Your task to perform on an android device: remove spam from my inbox in the gmail app Image 0: 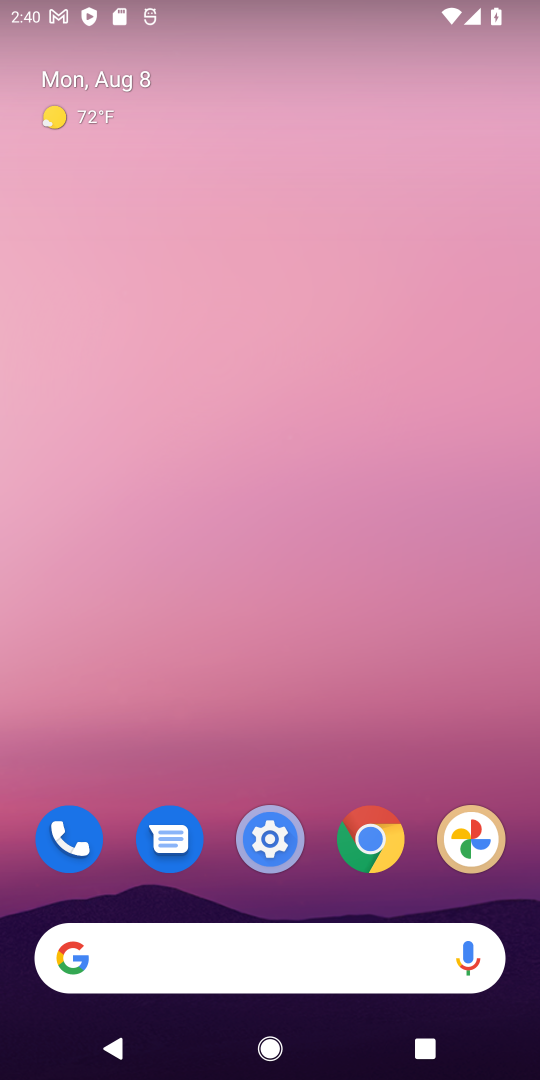
Step 0: drag from (439, 747) to (440, 196)
Your task to perform on an android device: remove spam from my inbox in the gmail app Image 1: 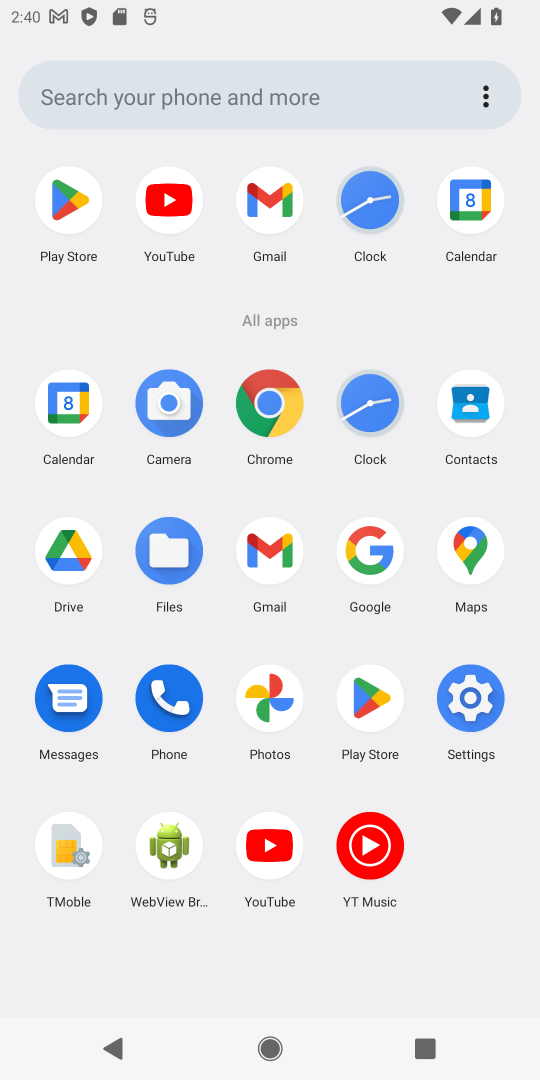
Step 1: click (255, 561)
Your task to perform on an android device: remove spam from my inbox in the gmail app Image 2: 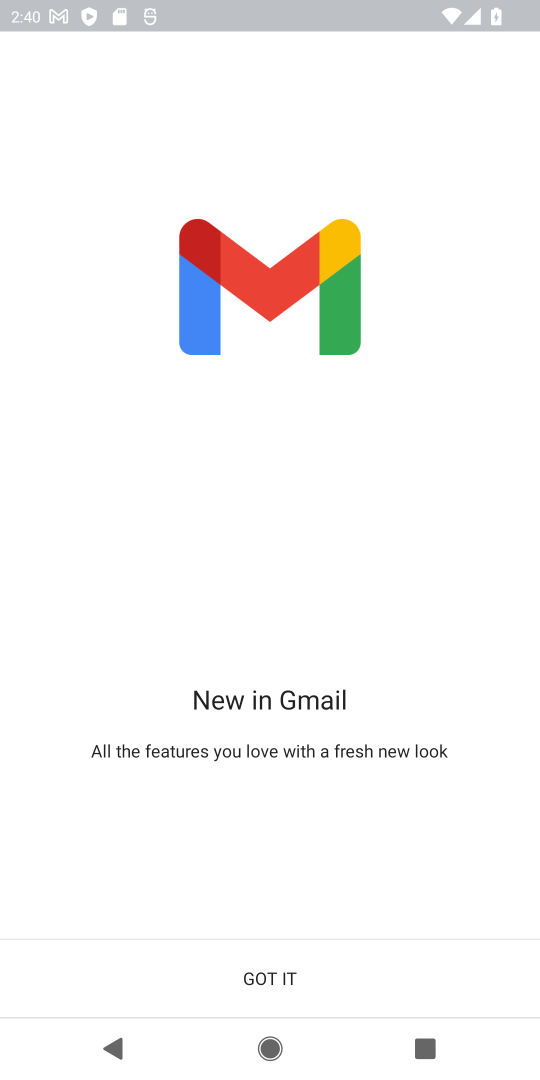
Step 2: click (265, 972)
Your task to perform on an android device: remove spam from my inbox in the gmail app Image 3: 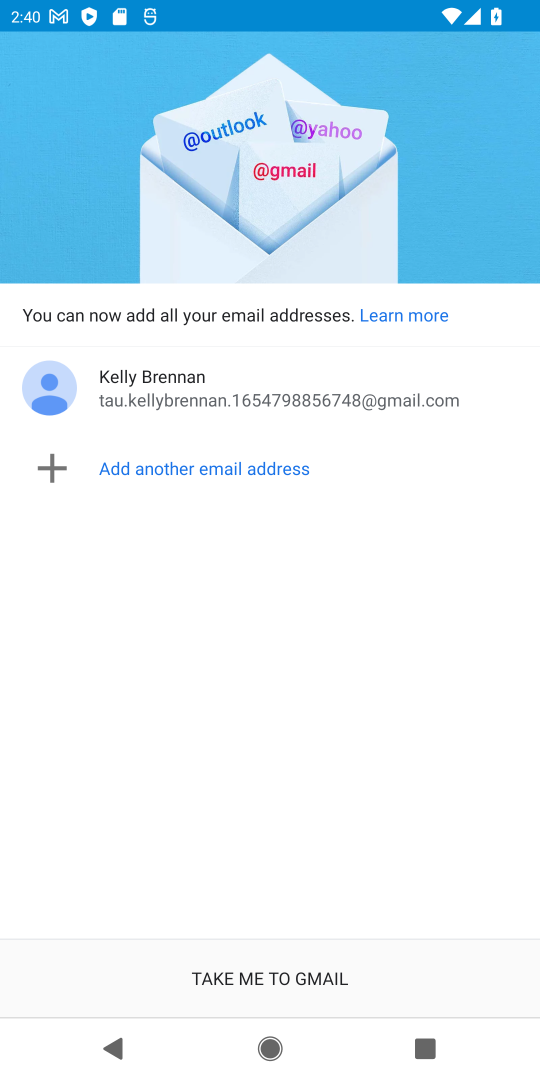
Step 3: click (273, 980)
Your task to perform on an android device: remove spam from my inbox in the gmail app Image 4: 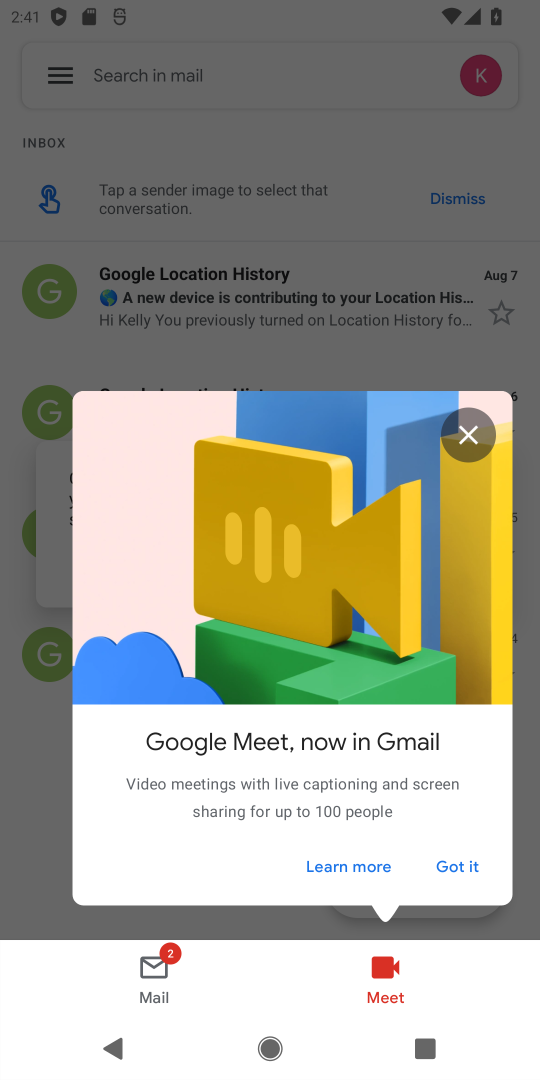
Step 4: click (469, 432)
Your task to perform on an android device: remove spam from my inbox in the gmail app Image 5: 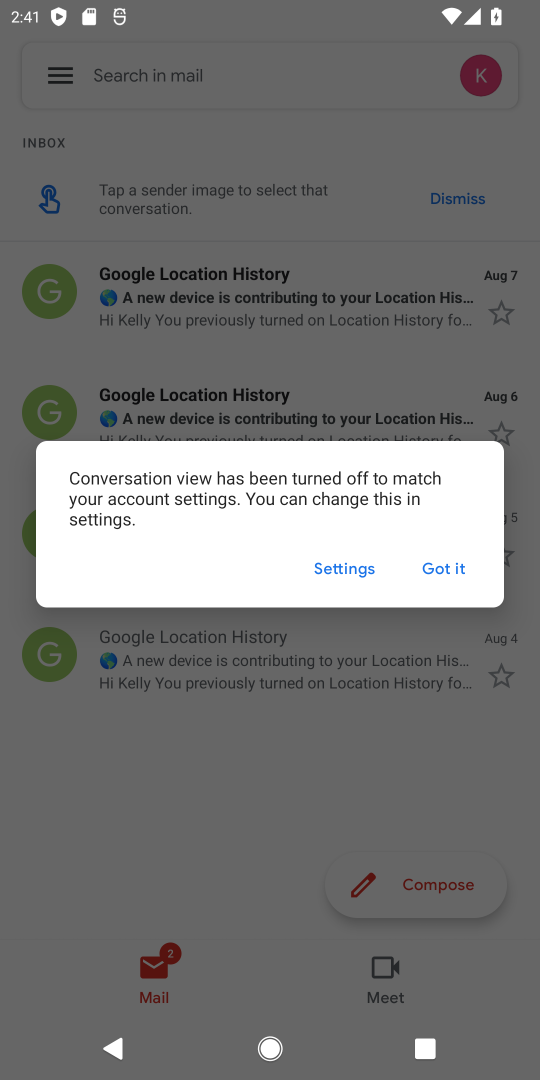
Step 5: click (449, 564)
Your task to perform on an android device: remove spam from my inbox in the gmail app Image 6: 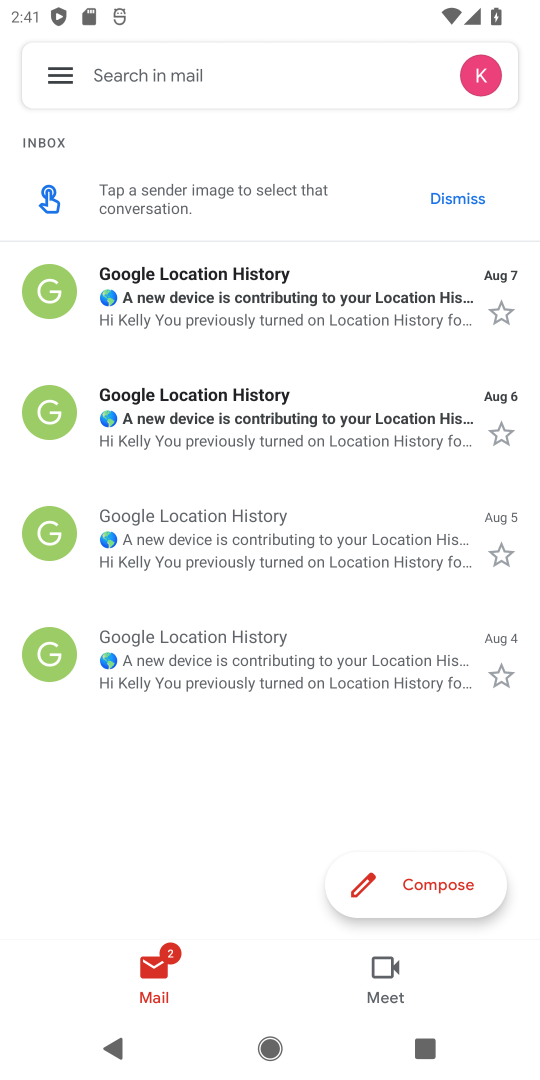
Step 6: click (55, 70)
Your task to perform on an android device: remove spam from my inbox in the gmail app Image 7: 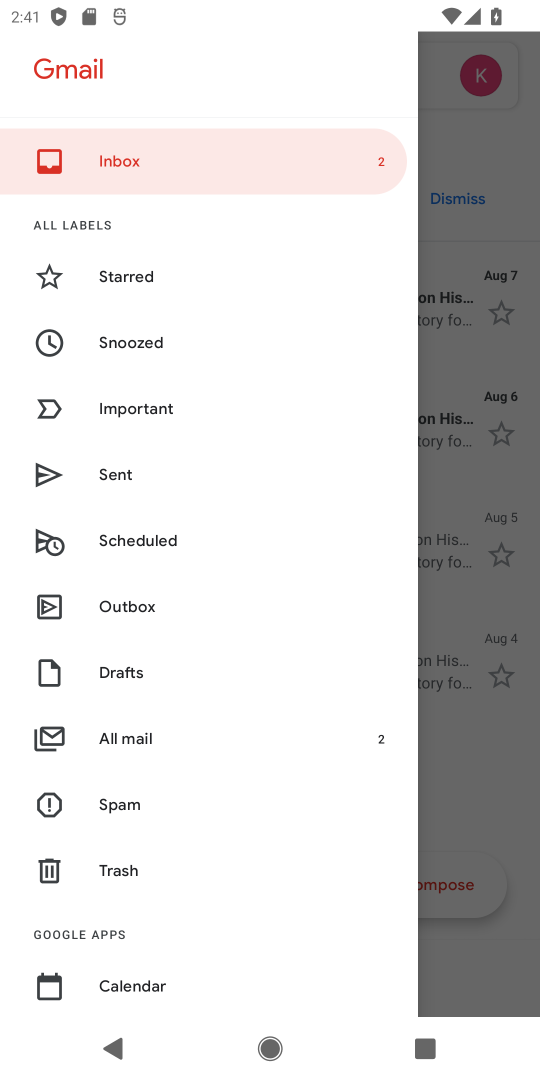
Step 7: drag from (262, 748) to (293, 372)
Your task to perform on an android device: remove spam from my inbox in the gmail app Image 8: 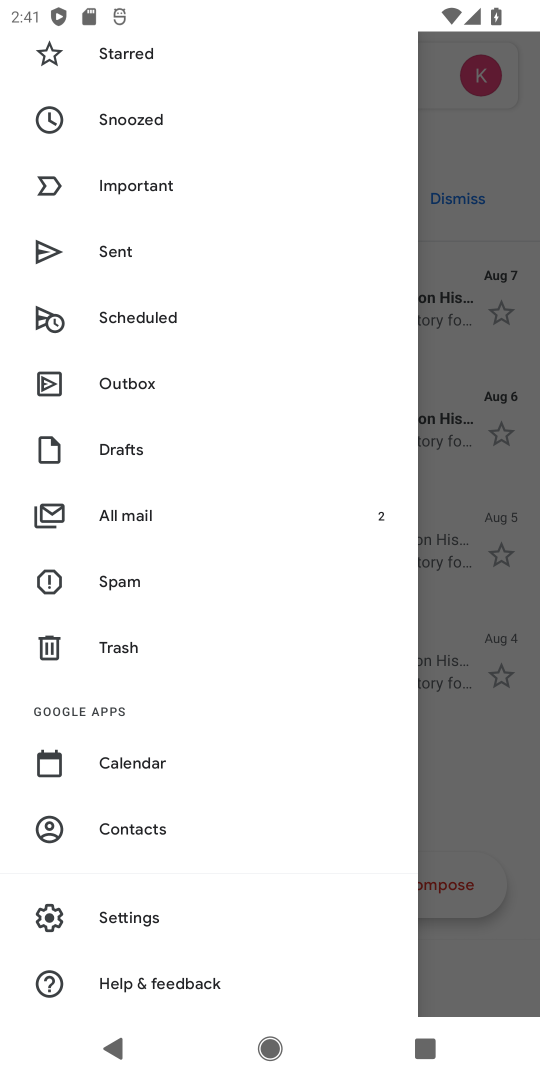
Step 8: drag from (254, 745) to (257, 424)
Your task to perform on an android device: remove spam from my inbox in the gmail app Image 9: 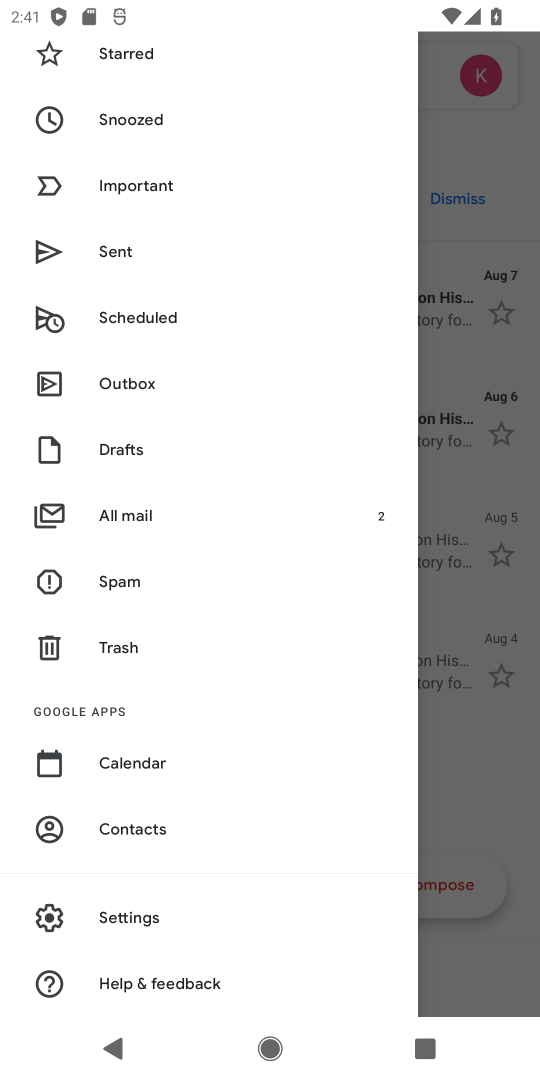
Step 9: drag from (245, 826) to (265, 475)
Your task to perform on an android device: remove spam from my inbox in the gmail app Image 10: 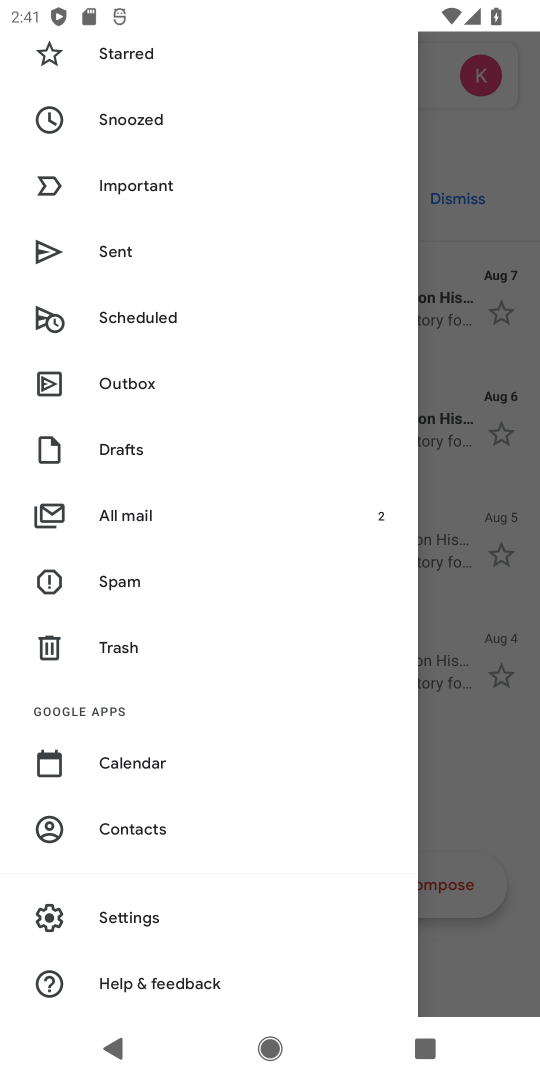
Step 10: click (136, 581)
Your task to perform on an android device: remove spam from my inbox in the gmail app Image 11: 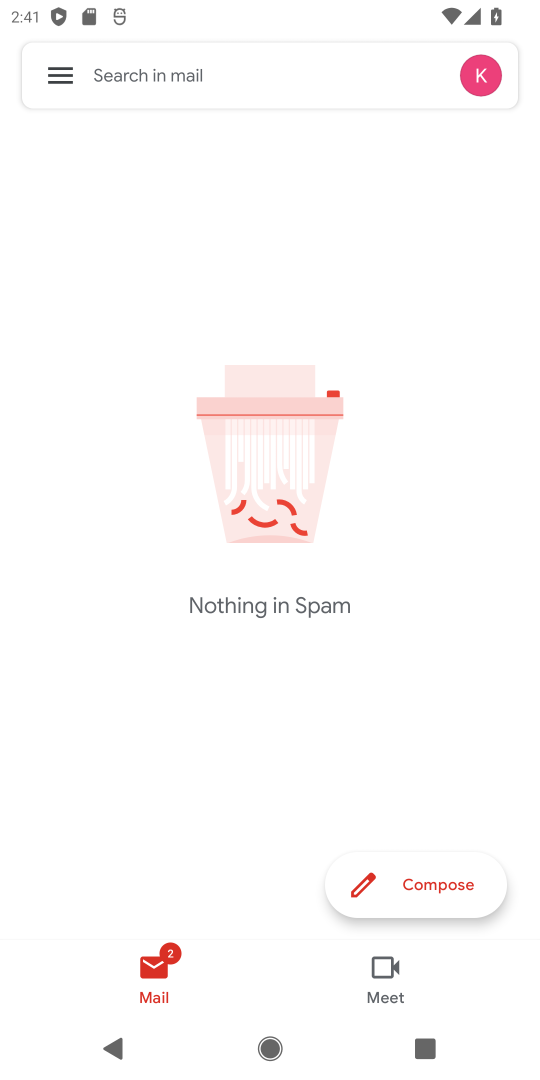
Step 11: task complete